Your task to perform on an android device: turn off wifi Image 0: 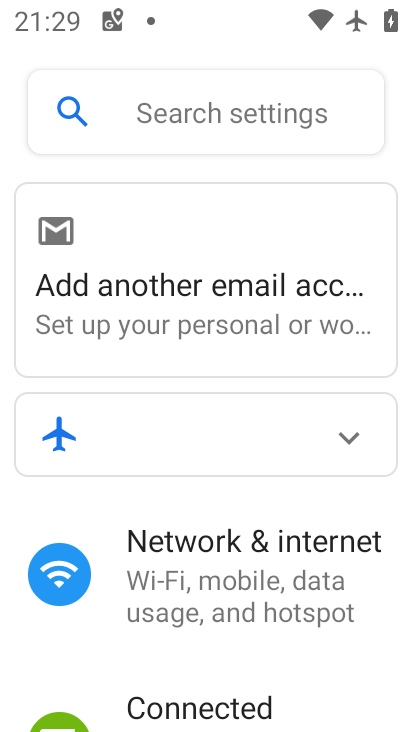
Step 0: press home button
Your task to perform on an android device: turn off wifi Image 1: 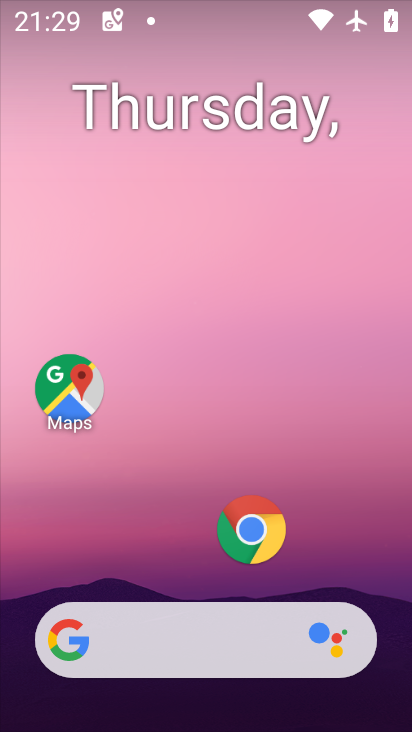
Step 1: drag from (196, 586) to (234, 97)
Your task to perform on an android device: turn off wifi Image 2: 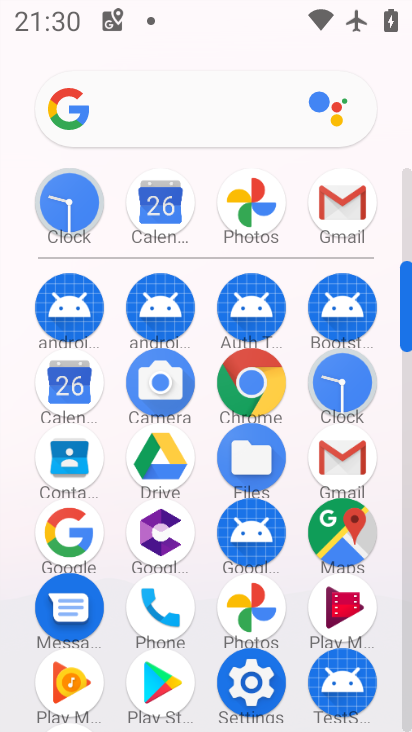
Step 2: click (249, 675)
Your task to perform on an android device: turn off wifi Image 3: 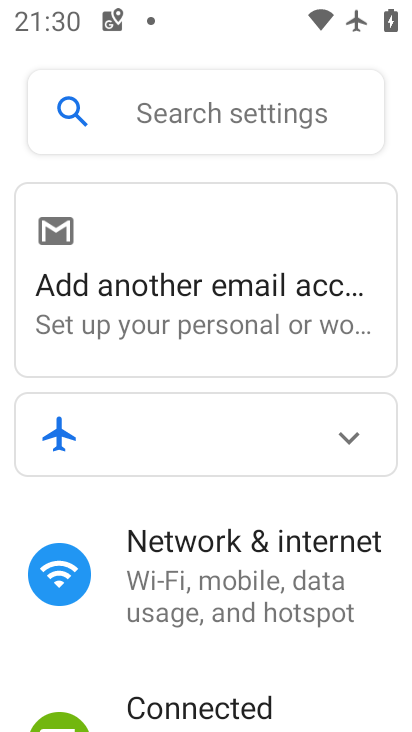
Step 3: click (107, 572)
Your task to perform on an android device: turn off wifi Image 4: 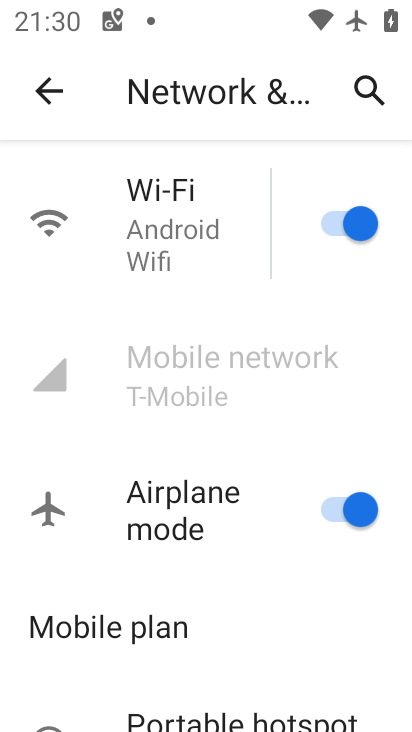
Step 4: click (327, 216)
Your task to perform on an android device: turn off wifi Image 5: 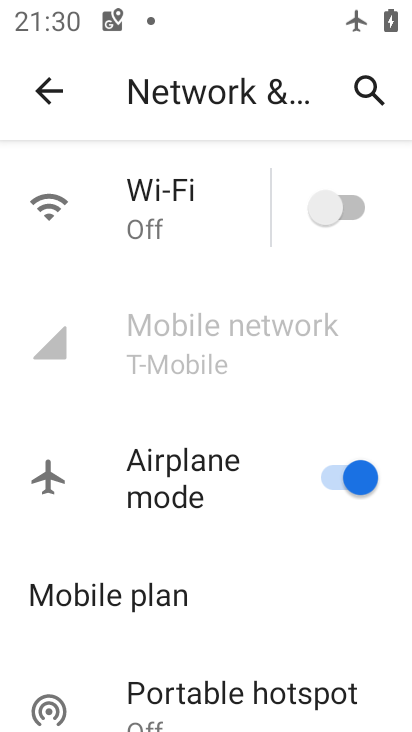
Step 5: task complete